Your task to perform on an android device: check google app version Image 0: 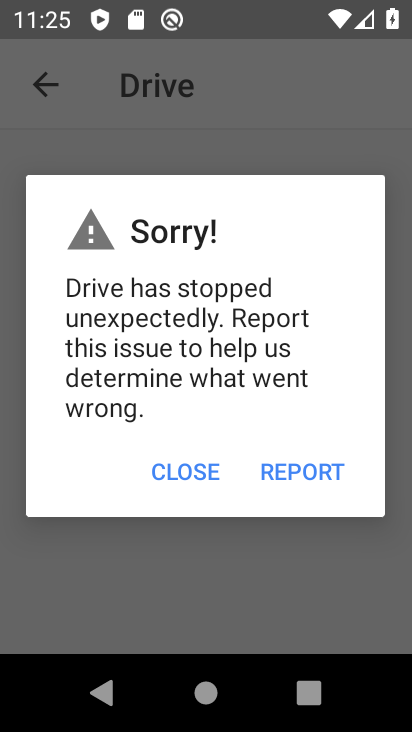
Step 0: press home button
Your task to perform on an android device: check google app version Image 1: 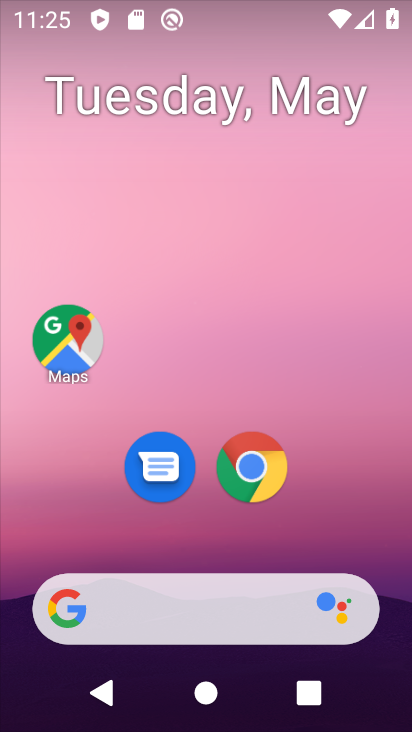
Step 1: drag from (191, 563) to (274, 63)
Your task to perform on an android device: check google app version Image 2: 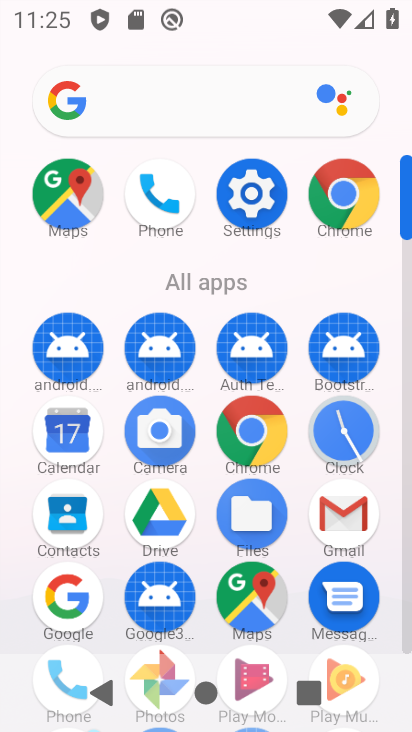
Step 2: click (60, 602)
Your task to perform on an android device: check google app version Image 3: 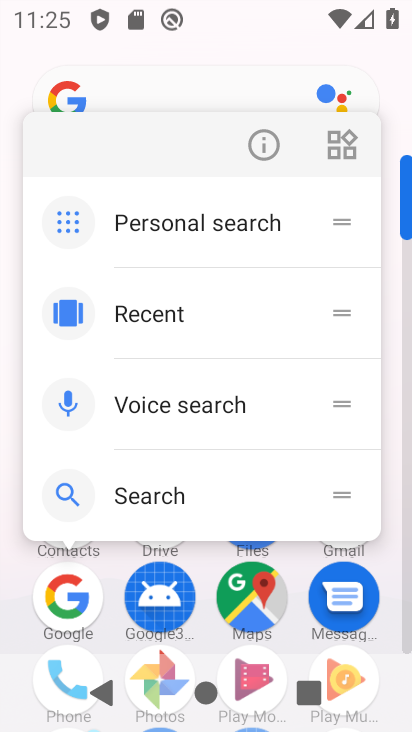
Step 3: click (247, 141)
Your task to perform on an android device: check google app version Image 4: 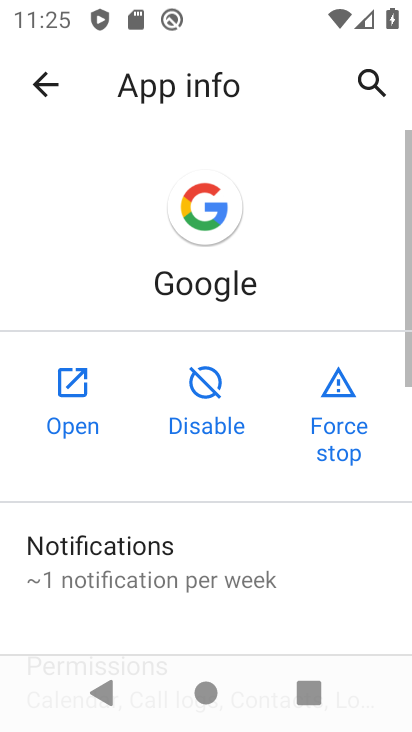
Step 4: drag from (337, 544) to (265, 45)
Your task to perform on an android device: check google app version Image 5: 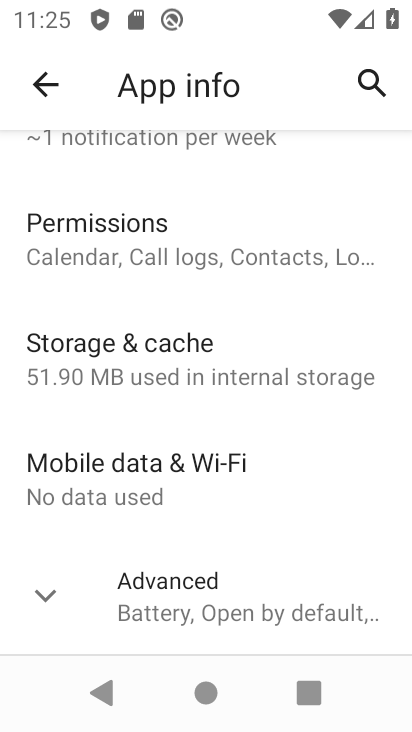
Step 5: click (198, 586)
Your task to perform on an android device: check google app version Image 6: 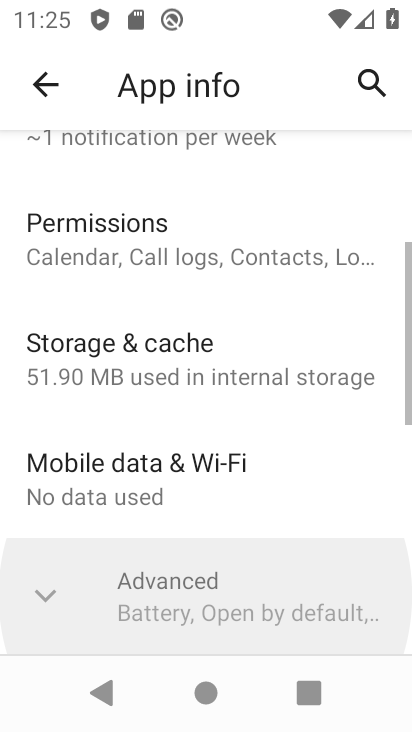
Step 6: task complete